Your task to perform on an android device: Do I have any events tomorrow? Image 0: 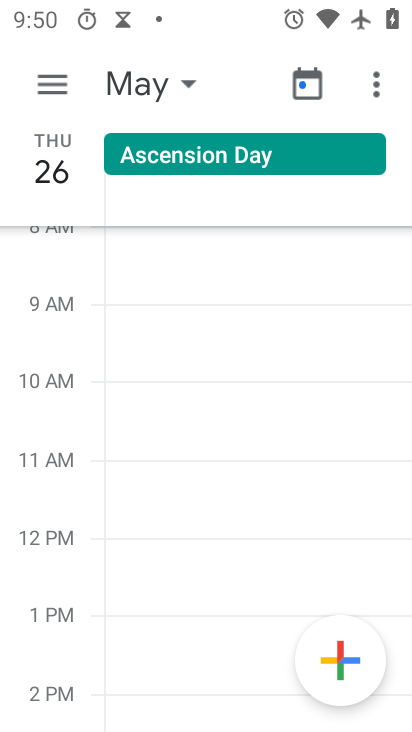
Step 0: press home button
Your task to perform on an android device: Do I have any events tomorrow? Image 1: 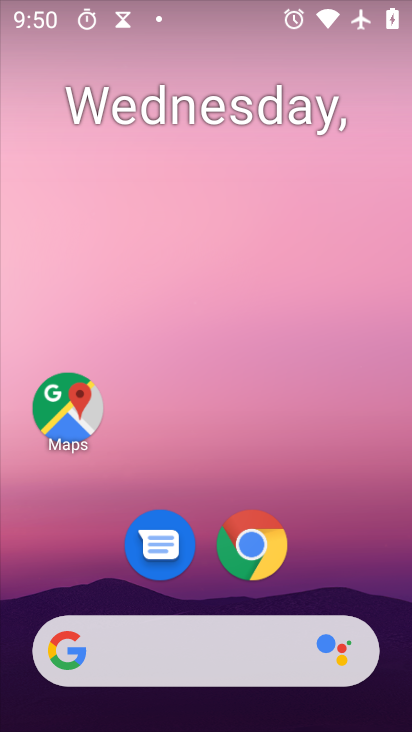
Step 1: drag from (177, 651) to (324, 103)
Your task to perform on an android device: Do I have any events tomorrow? Image 2: 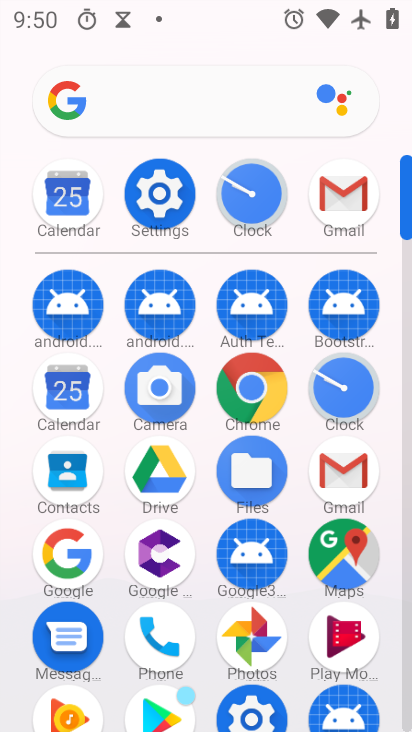
Step 2: click (69, 199)
Your task to perform on an android device: Do I have any events tomorrow? Image 3: 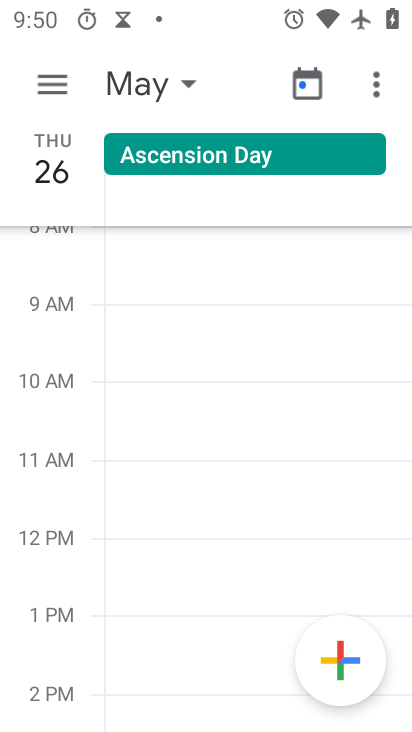
Step 3: click (55, 91)
Your task to perform on an android device: Do I have any events tomorrow? Image 4: 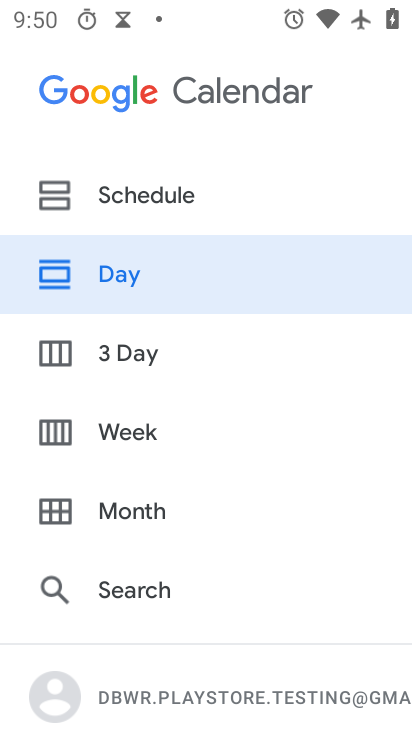
Step 4: click (149, 196)
Your task to perform on an android device: Do I have any events tomorrow? Image 5: 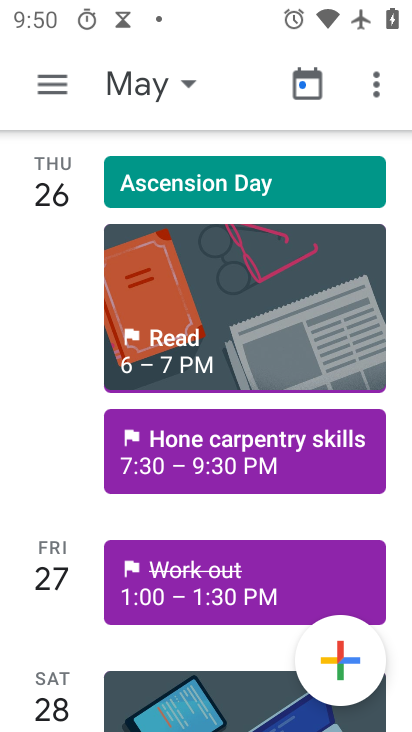
Step 5: click (208, 436)
Your task to perform on an android device: Do I have any events tomorrow? Image 6: 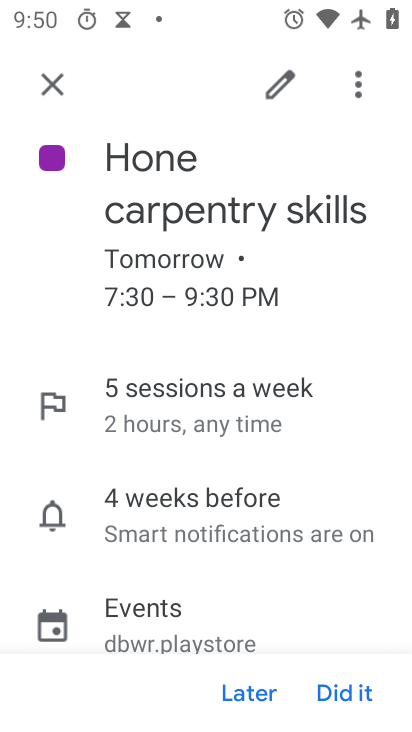
Step 6: task complete